Your task to perform on an android device: change timer sound Image 0: 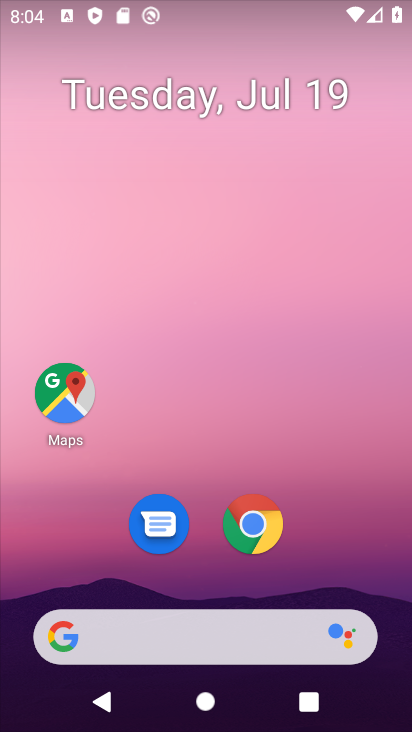
Step 0: drag from (319, 510) to (315, 21)
Your task to perform on an android device: change timer sound Image 1: 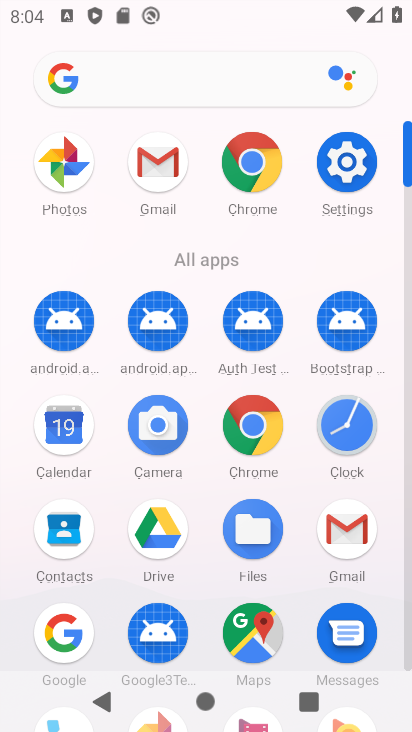
Step 1: click (349, 419)
Your task to perform on an android device: change timer sound Image 2: 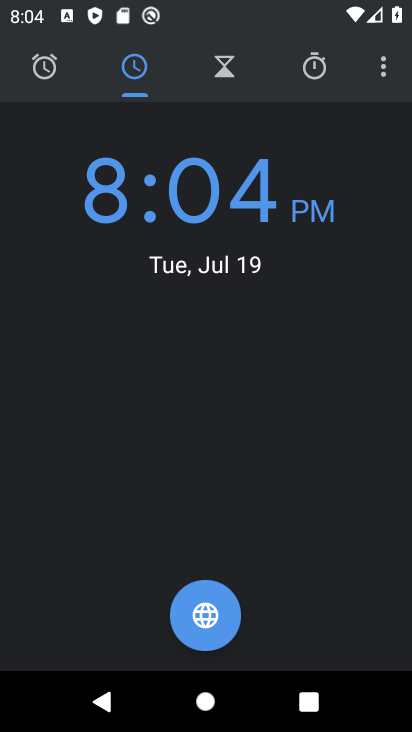
Step 2: click (382, 71)
Your task to perform on an android device: change timer sound Image 3: 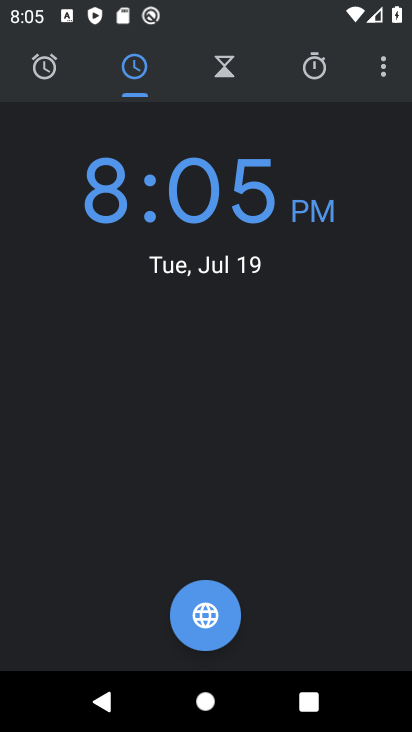
Step 3: click (382, 70)
Your task to perform on an android device: change timer sound Image 4: 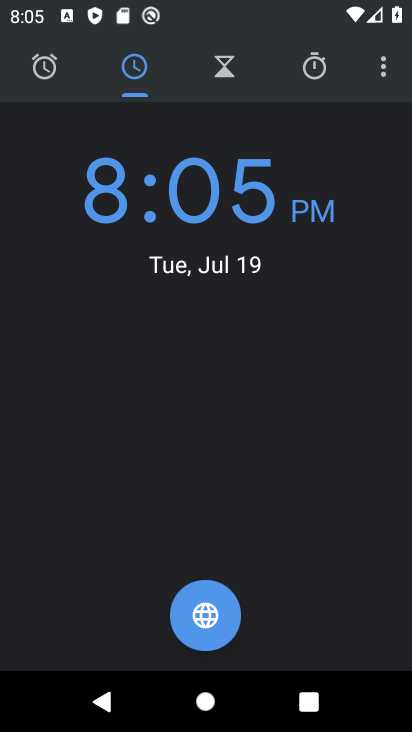
Step 4: click (389, 73)
Your task to perform on an android device: change timer sound Image 5: 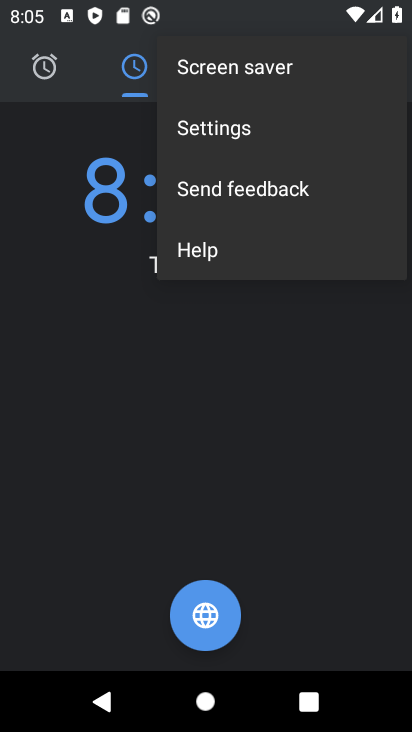
Step 5: click (314, 125)
Your task to perform on an android device: change timer sound Image 6: 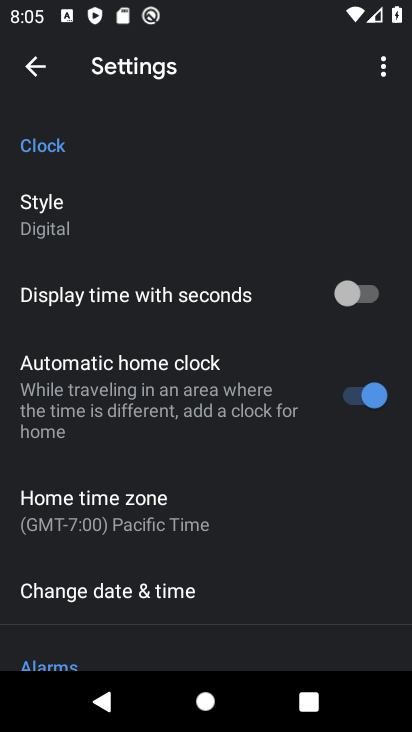
Step 6: drag from (224, 558) to (299, 59)
Your task to perform on an android device: change timer sound Image 7: 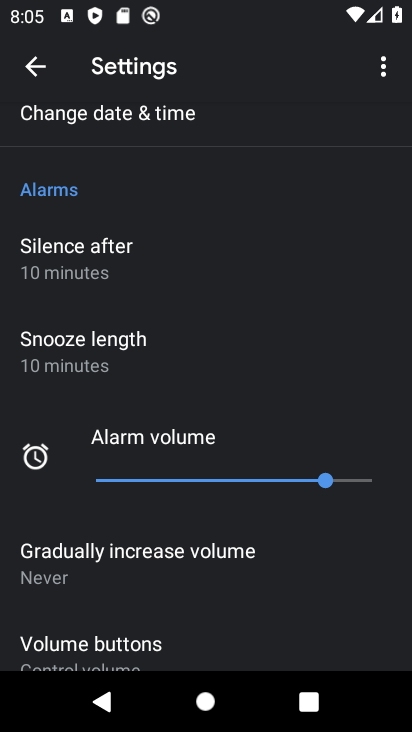
Step 7: drag from (242, 363) to (291, 33)
Your task to perform on an android device: change timer sound Image 8: 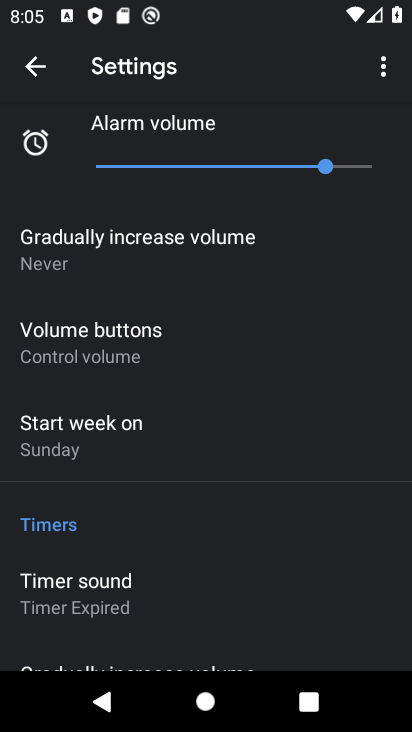
Step 8: click (111, 584)
Your task to perform on an android device: change timer sound Image 9: 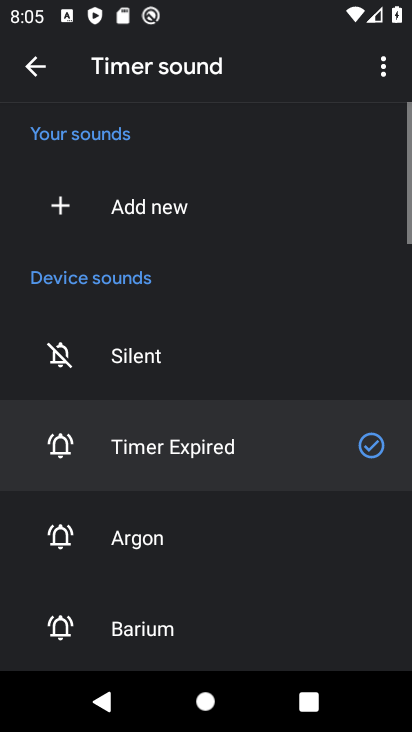
Step 9: click (125, 538)
Your task to perform on an android device: change timer sound Image 10: 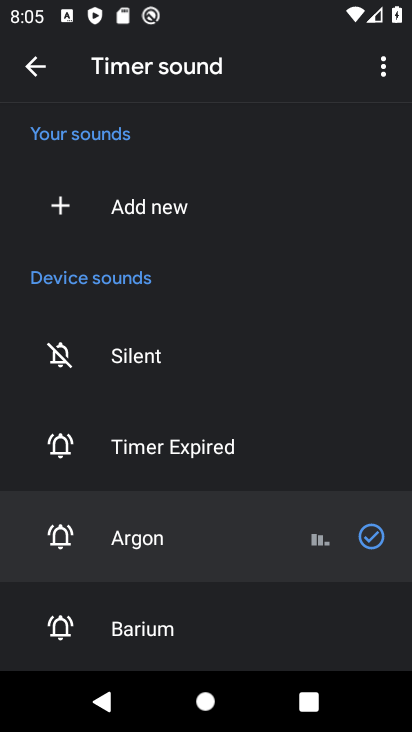
Step 10: task complete